Your task to perform on an android device: Open Chrome and go to the settings page Image 0: 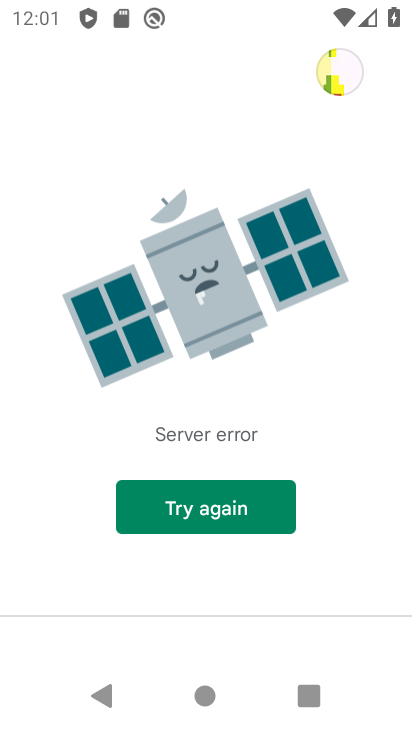
Step 0: press back button
Your task to perform on an android device: Open Chrome and go to the settings page Image 1: 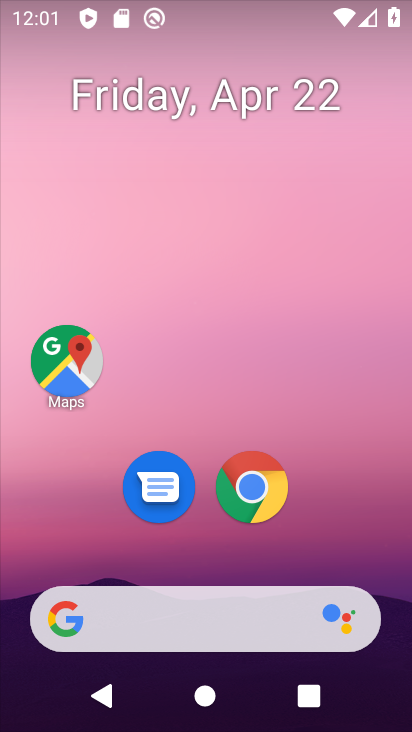
Step 1: click (262, 492)
Your task to perform on an android device: Open Chrome and go to the settings page Image 2: 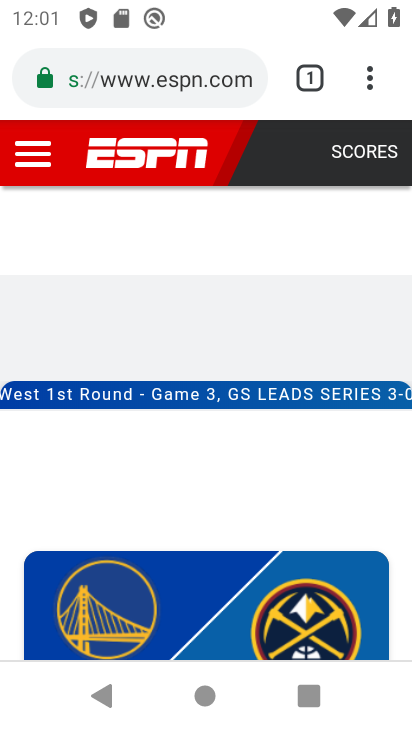
Step 2: task complete